Your task to perform on an android device: Open my contact list Image 0: 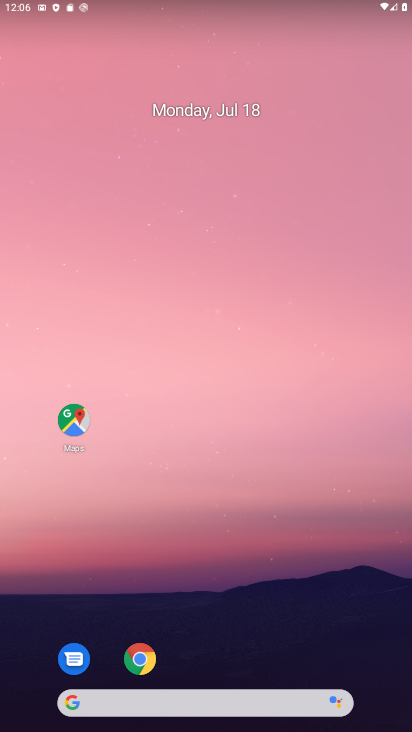
Step 0: drag from (211, 671) to (208, 326)
Your task to perform on an android device: Open my contact list Image 1: 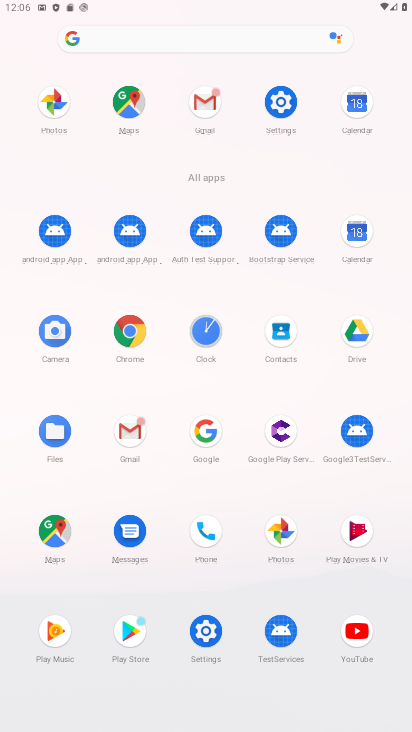
Step 1: click (276, 331)
Your task to perform on an android device: Open my contact list Image 2: 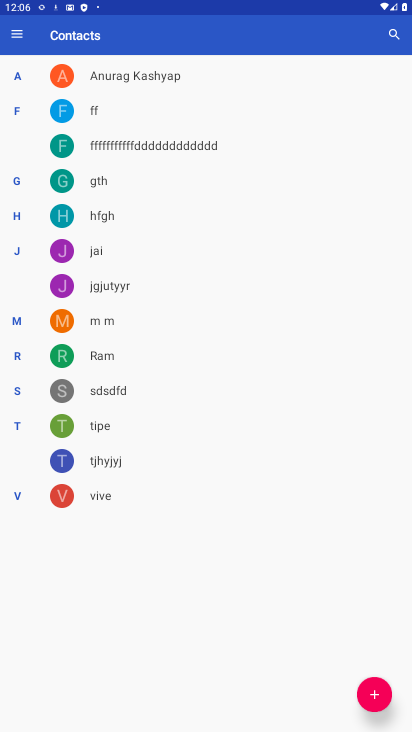
Step 2: task complete